Your task to perform on an android device: Go to wifi settings Image 0: 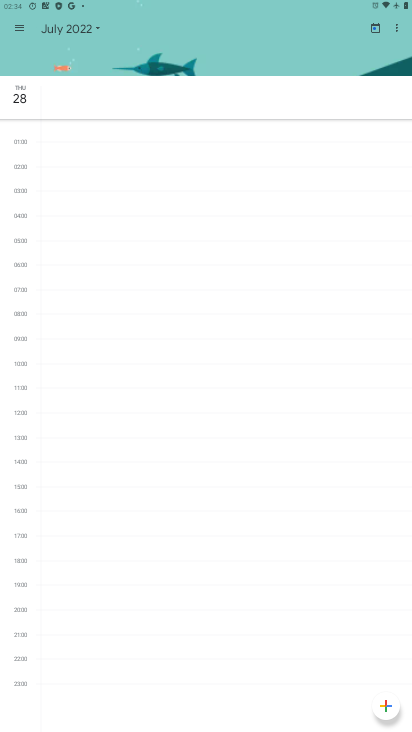
Step 0: press home button
Your task to perform on an android device: Go to wifi settings Image 1: 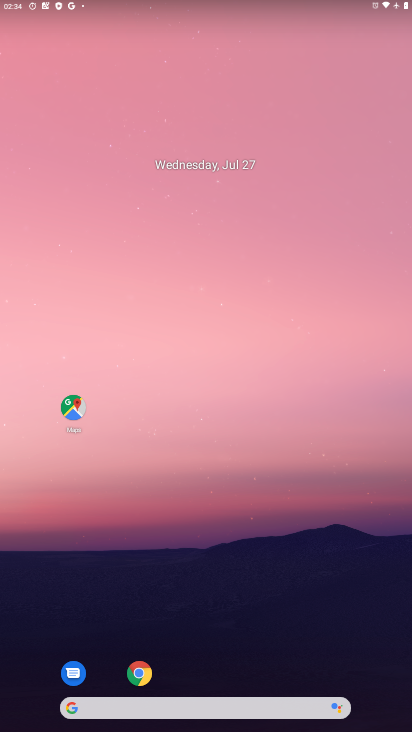
Step 1: drag from (209, 686) to (227, 65)
Your task to perform on an android device: Go to wifi settings Image 2: 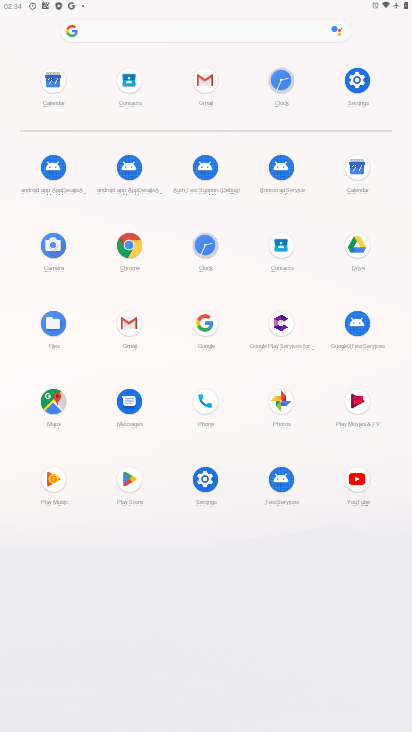
Step 2: click (357, 85)
Your task to perform on an android device: Go to wifi settings Image 3: 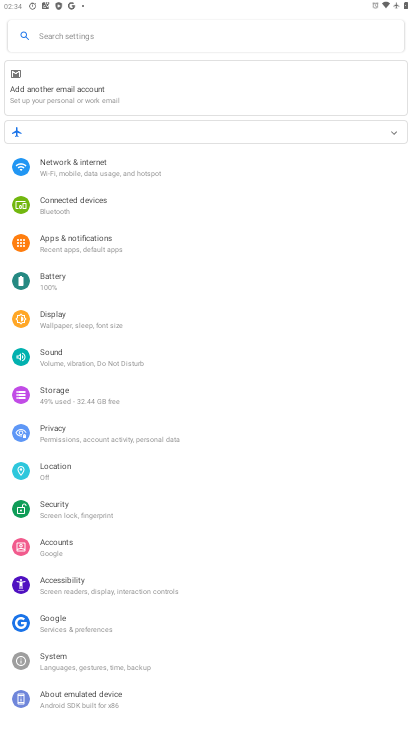
Step 3: click (77, 173)
Your task to perform on an android device: Go to wifi settings Image 4: 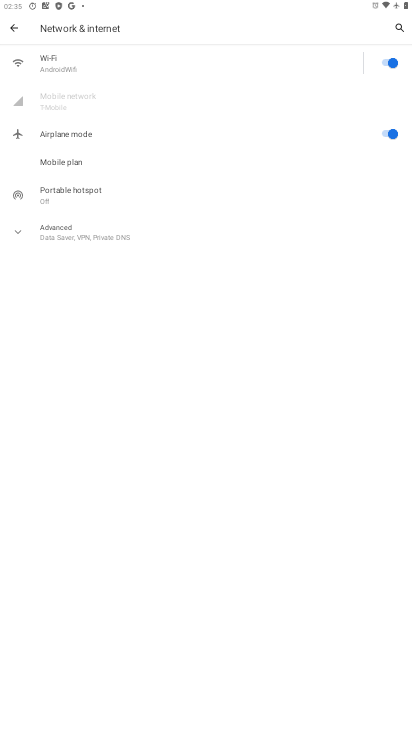
Step 4: click (25, 57)
Your task to perform on an android device: Go to wifi settings Image 5: 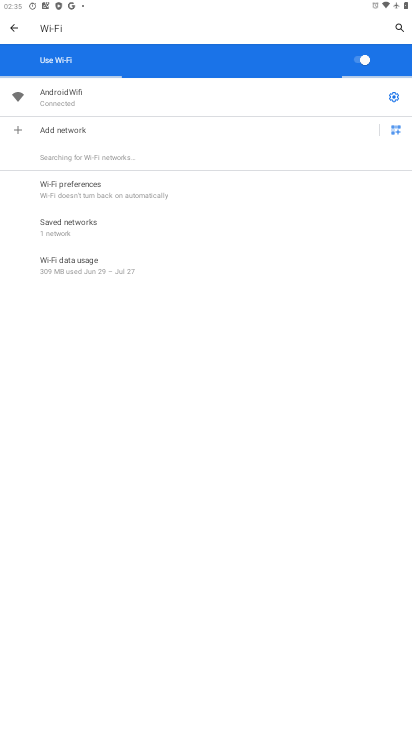
Step 5: task complete